Your task to perform on an android device: Find coffee shops on Maps Image 0: 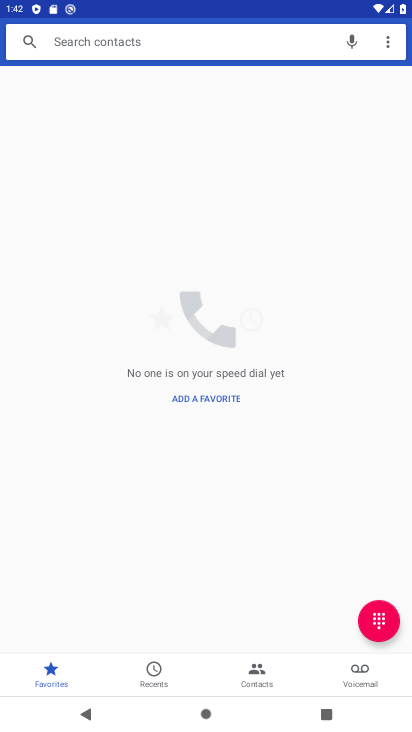
Step 0: press back button
Your task to perform on an android device: Find coffee shops on Maps Image 1: 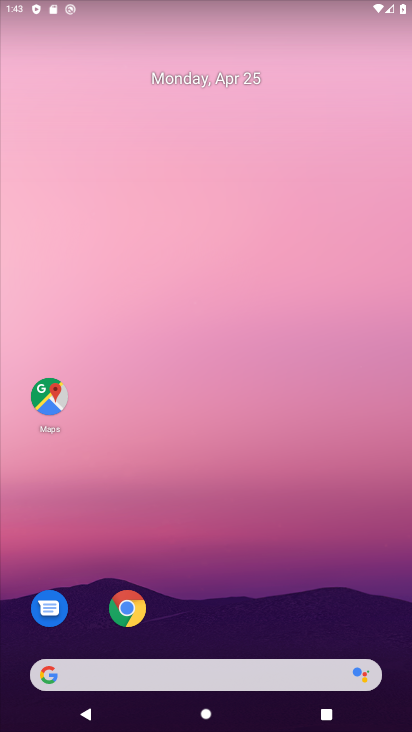
Step 1: click (52, 399)
Your task to perform on an android device: Find coffee shops on Maps Image 2: 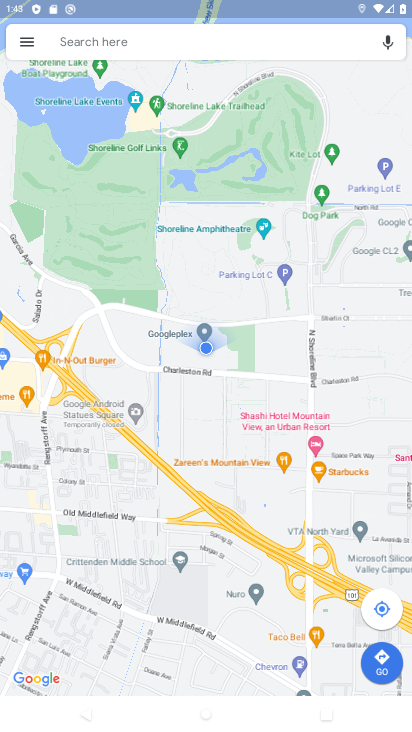
Step 2: click (97, 51)
Your task to perform on an android device: Find coffee shops on Maps Image 3: 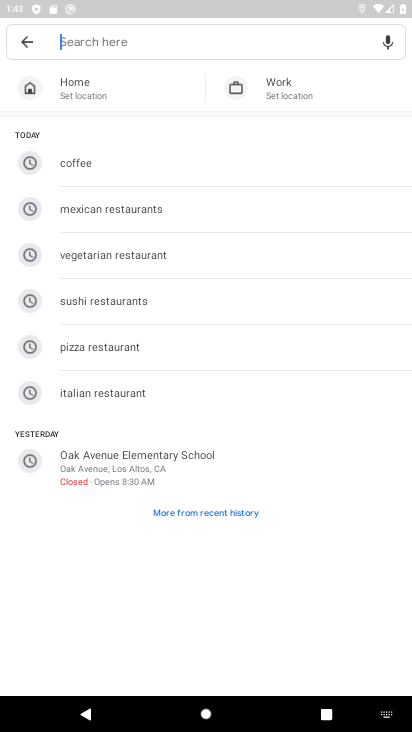
Step 3: type "coffee shops"
Your task to perform on an android device: Find coffee shops on Maps Image 4: 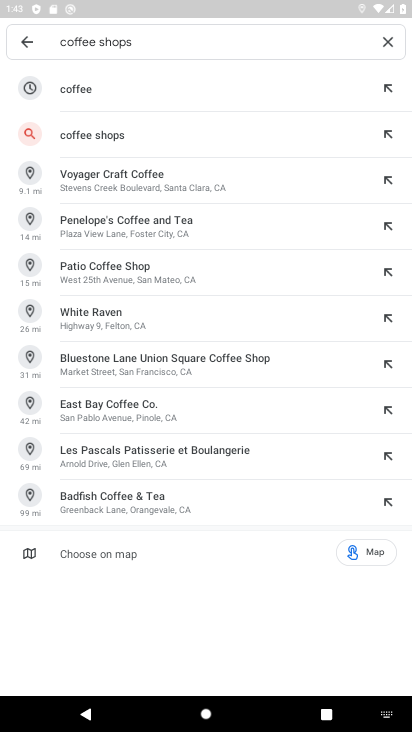
Step 4: click (147, 139)
Your task to perform on an android device: Find coffee shops on Maps Image 5: 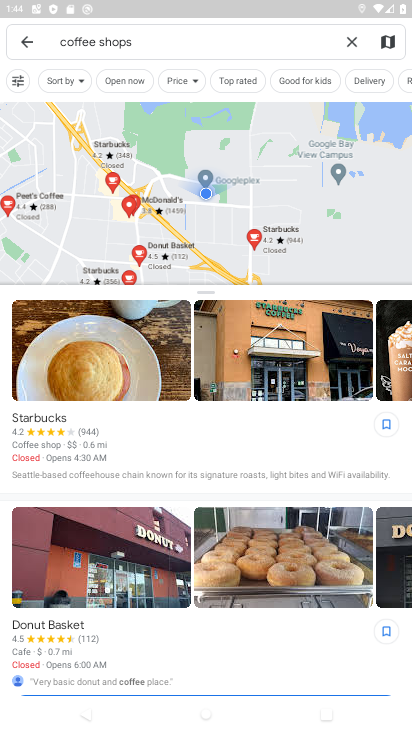
Step 5: task complete